Your task to perform on an android device: change your default location settings in chrome Image 0: 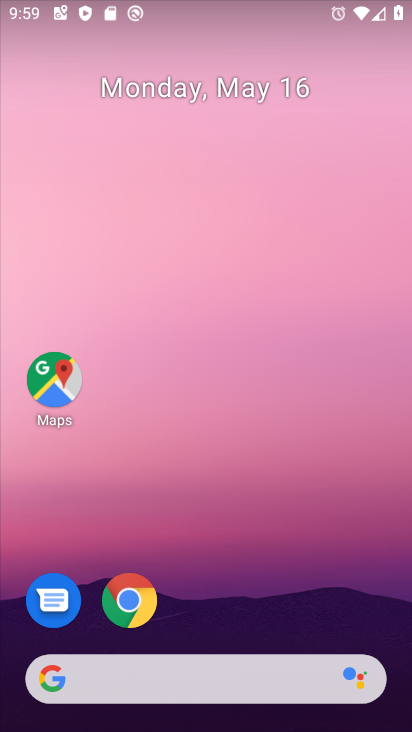
Step 0: click (276, 93)
Your task to perform on an android device: change your default location settings in chrome Image 1: 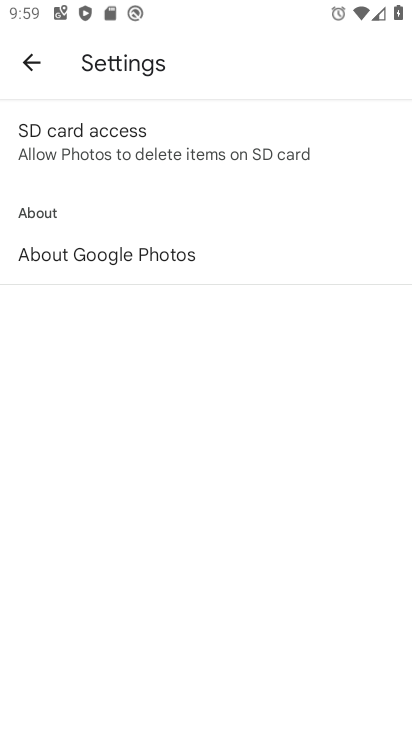
Step 1: press home button
Your task to perform on an android device: change your default location settings in chrome Image 2: 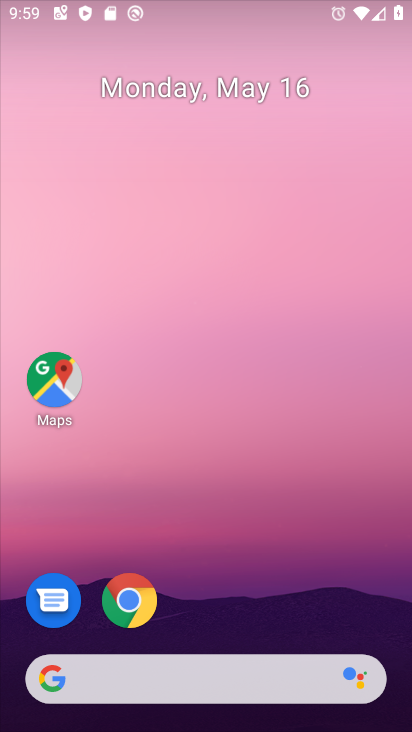
Step 2: drag from (191, 604) to (172, 31)
Your task to perform on an android device: change your default location settings in chrome Image 3: 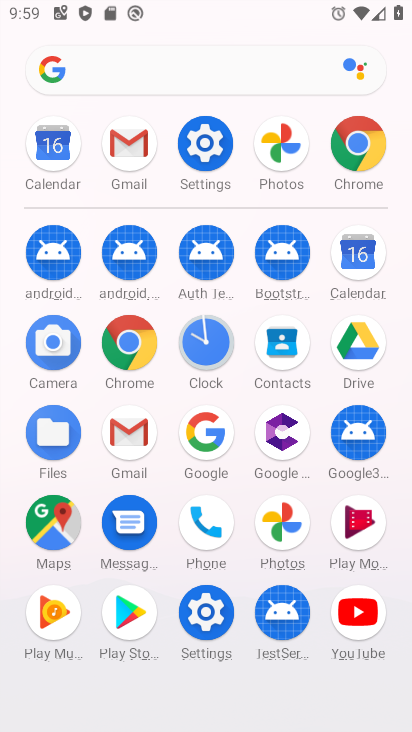
Step 3: click (128, 340)
Your task to perform on an android device: change your default location settings in chrome Image 4: 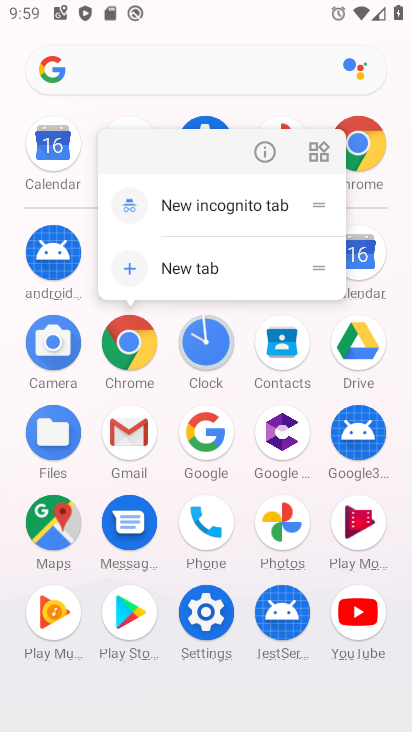
Step 4: click (253, 144)
Your task to perform on an android device: change your default location settings in chrome Image 5: 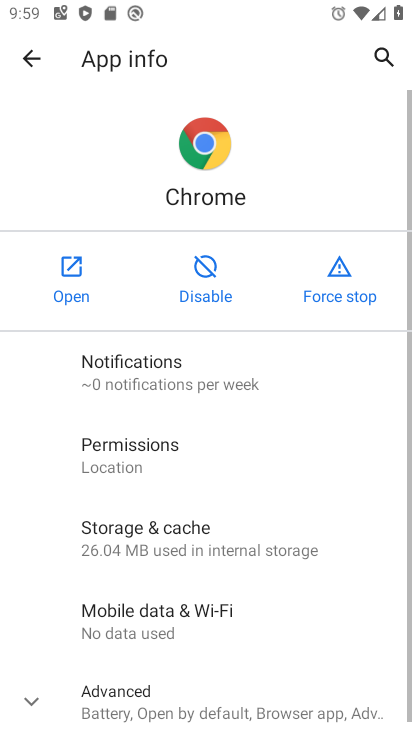
Step 5: click (50, 282)
Your task to perform on an android device: change your default location settings in chrome Image 6: 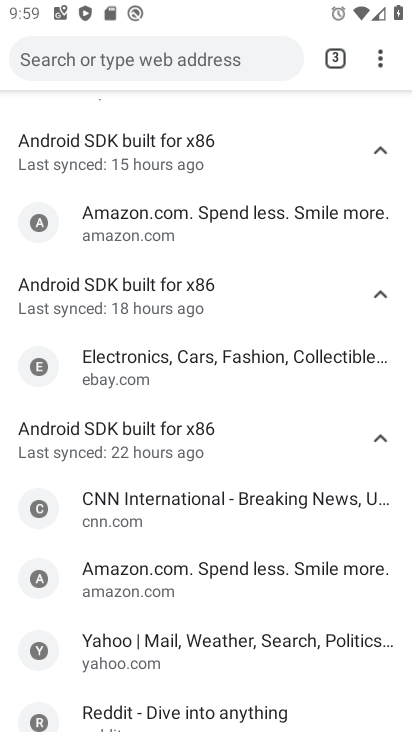
Step 6: click (381, 45)
Your task to perform on an android device: change your default location settings in chrome Image 7: 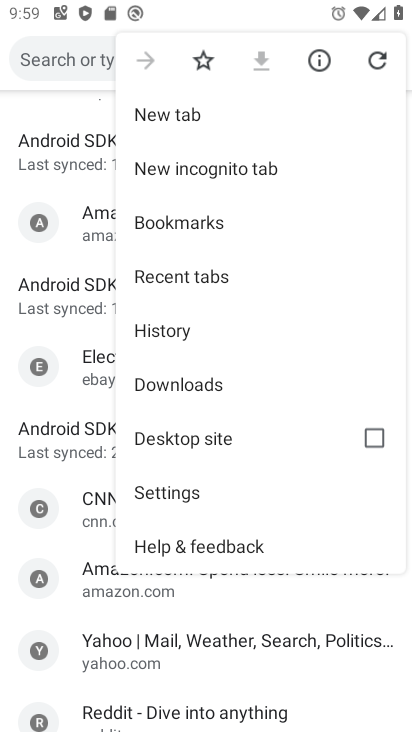
Step 7: drag from (244, 440) to (257, 206)
Your task to perform on an android device: change your default location settings in chrome Image 8: 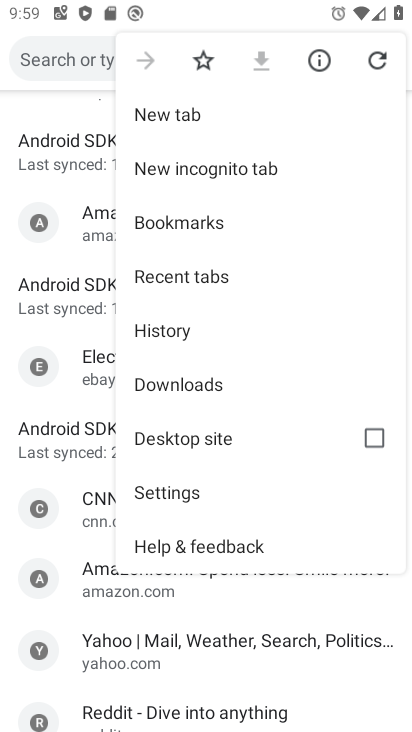
Step 8: click (165, 481)
Your task to perform on an android device: change your default location settings in chrome Image 9: 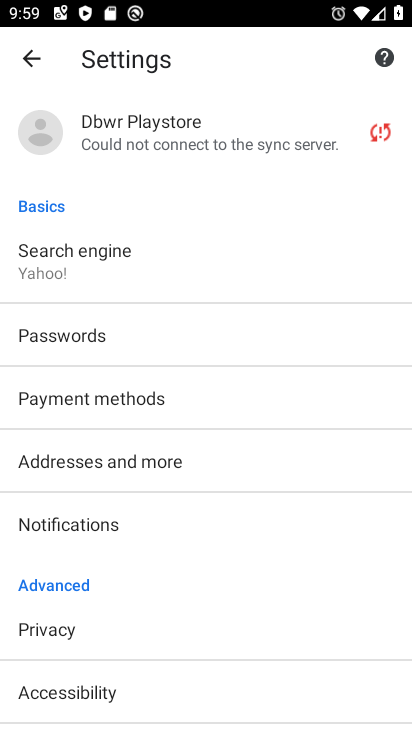
Step 9: drag from (164, 585) to (243, 226)
Your task to perform on an android device: change your default location settings in chrome Image 10: 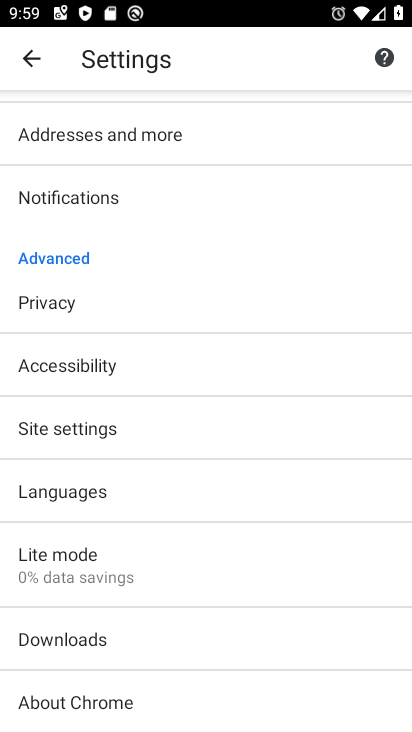
Step 10: click (140, 450)
Your task to perform on an android device: change your default location settings in chrome Image 11: 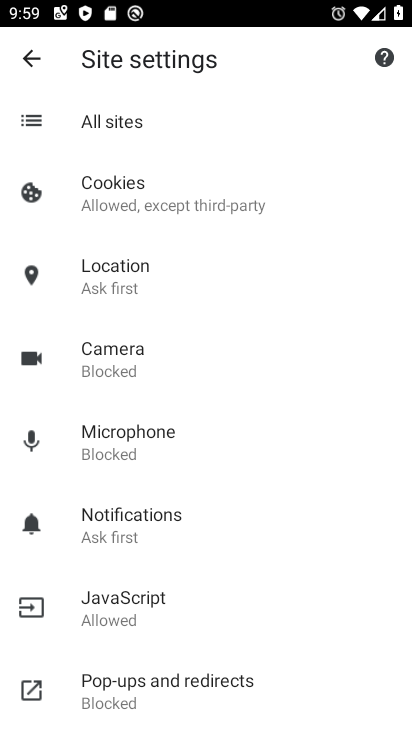
Step 11: click (180, 260)
Your task to perform on an android device: change your default location settings in chrome Image 12: 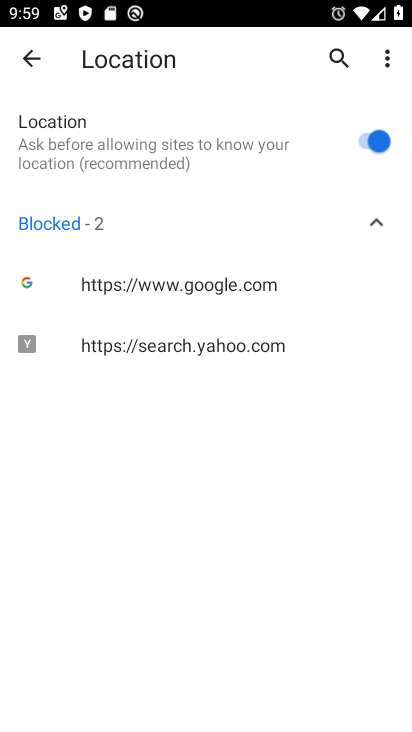
Step 12: click (376, 135)
Your task to perform on an android device: change your default location settings in chrome Image 13: 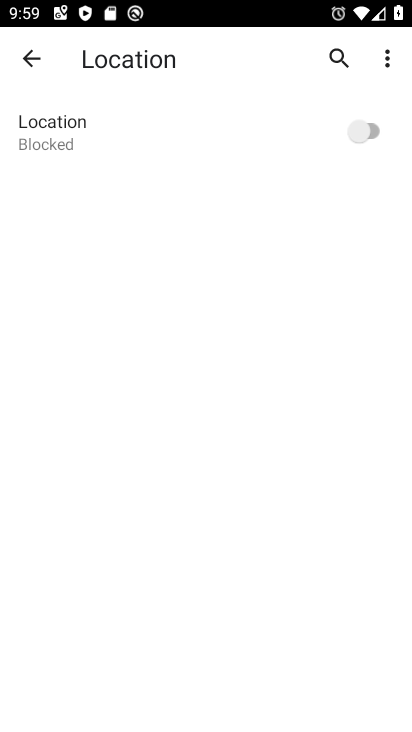
Step 13: task complete